Your task to perform on an android device: Go to Amazon Image 0: 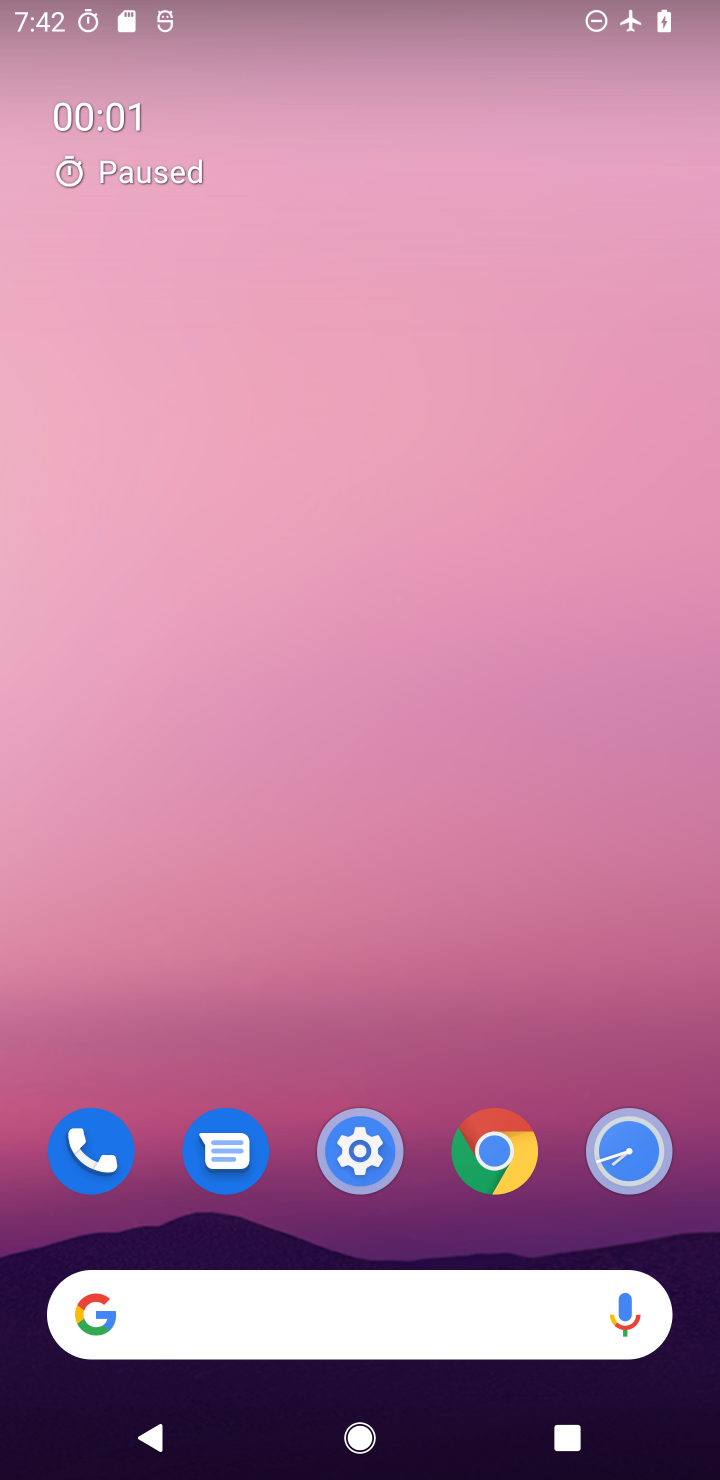
Step 0: drag from (457, 520) to (478, 129)
Your task to perform on an android device: Go to Amazon Image 1: 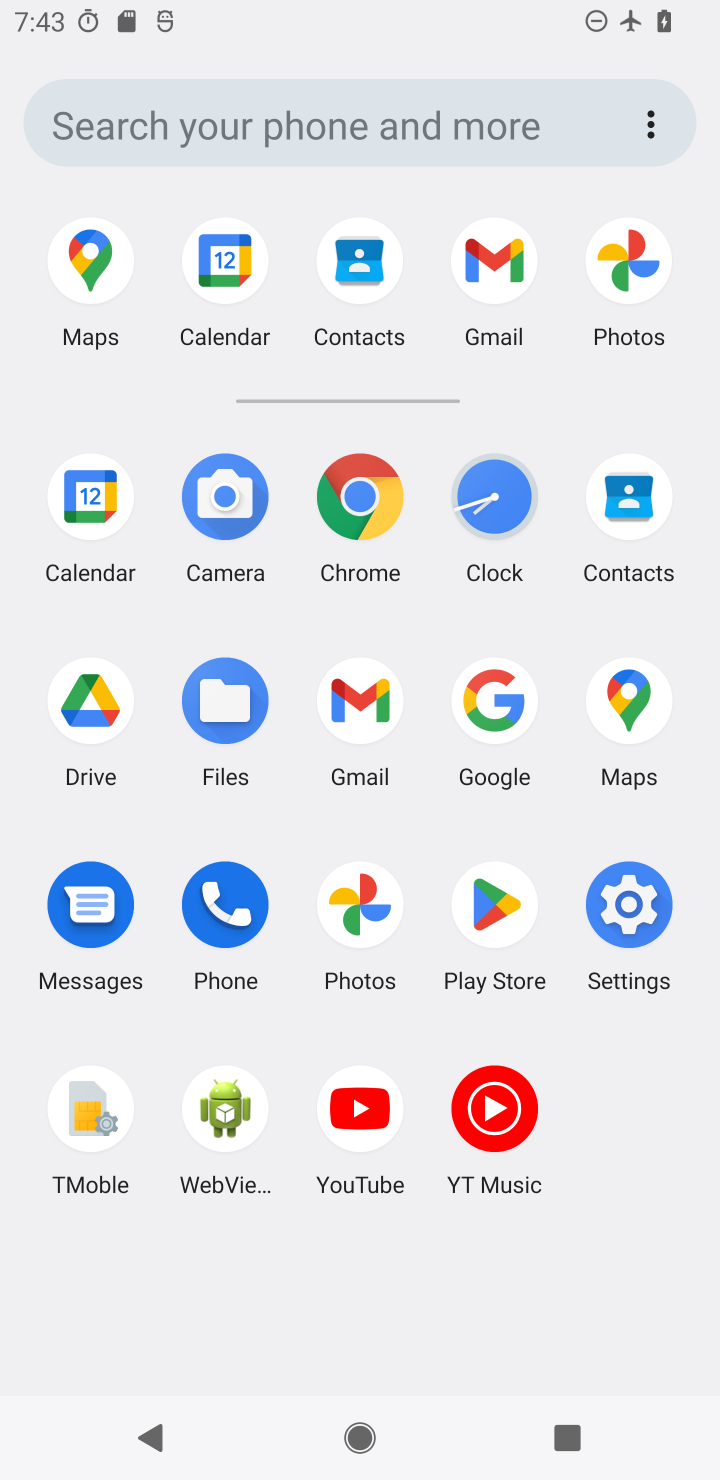
Step 1: click (363, 501)
Your task to perform on an android device: Go to Amazon Image 2: 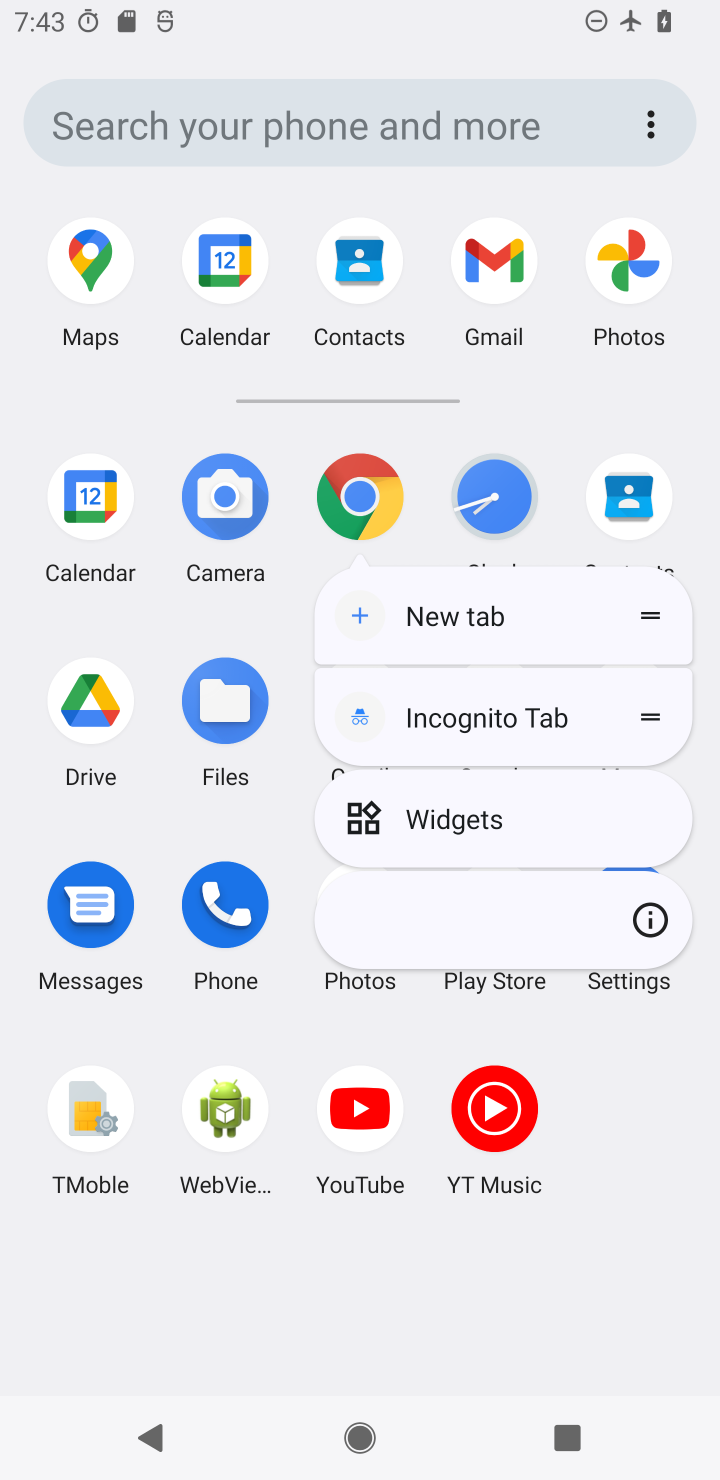
Step 2: click (358, 494)
Your task to perform on an android device: Go to Amazon Image 3: 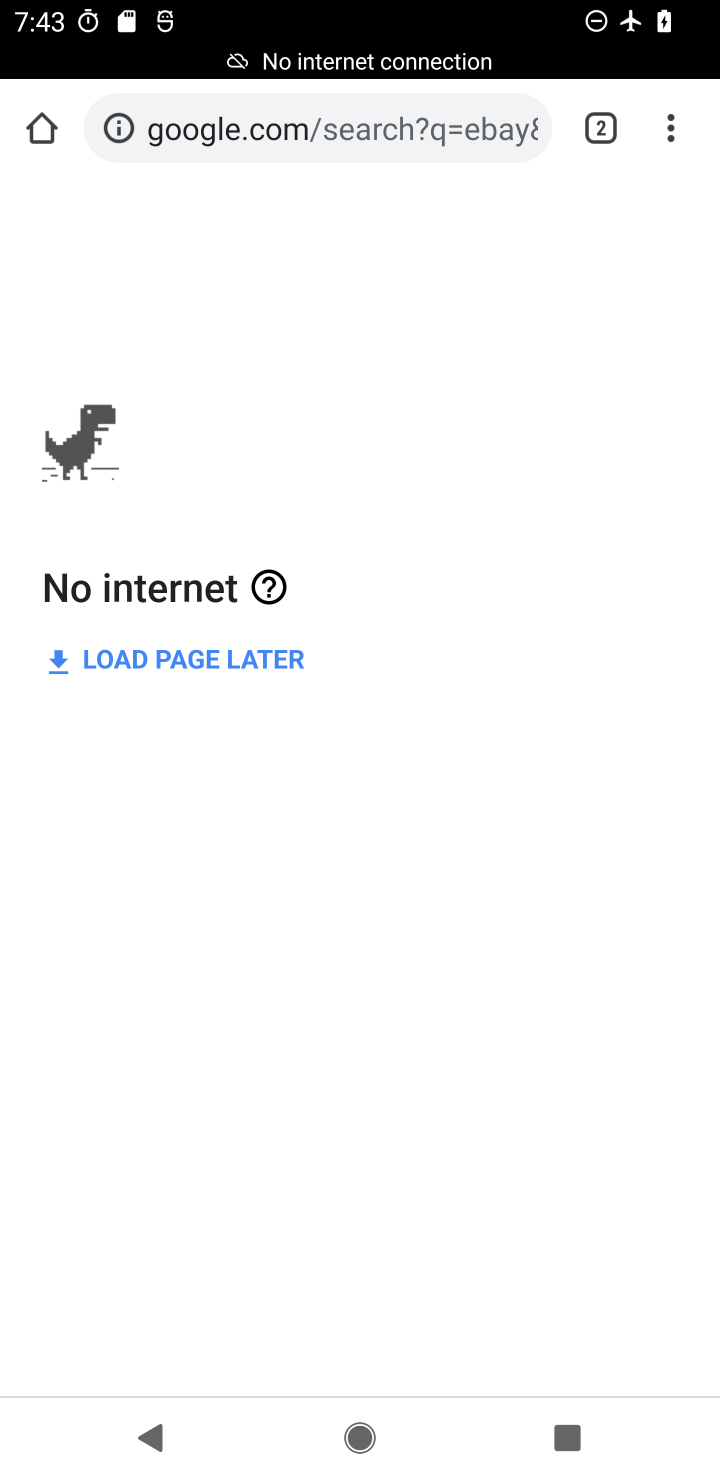
Step 3: click (311, 109)
Your task to perform on an android device: Go to Amazon Image 4: 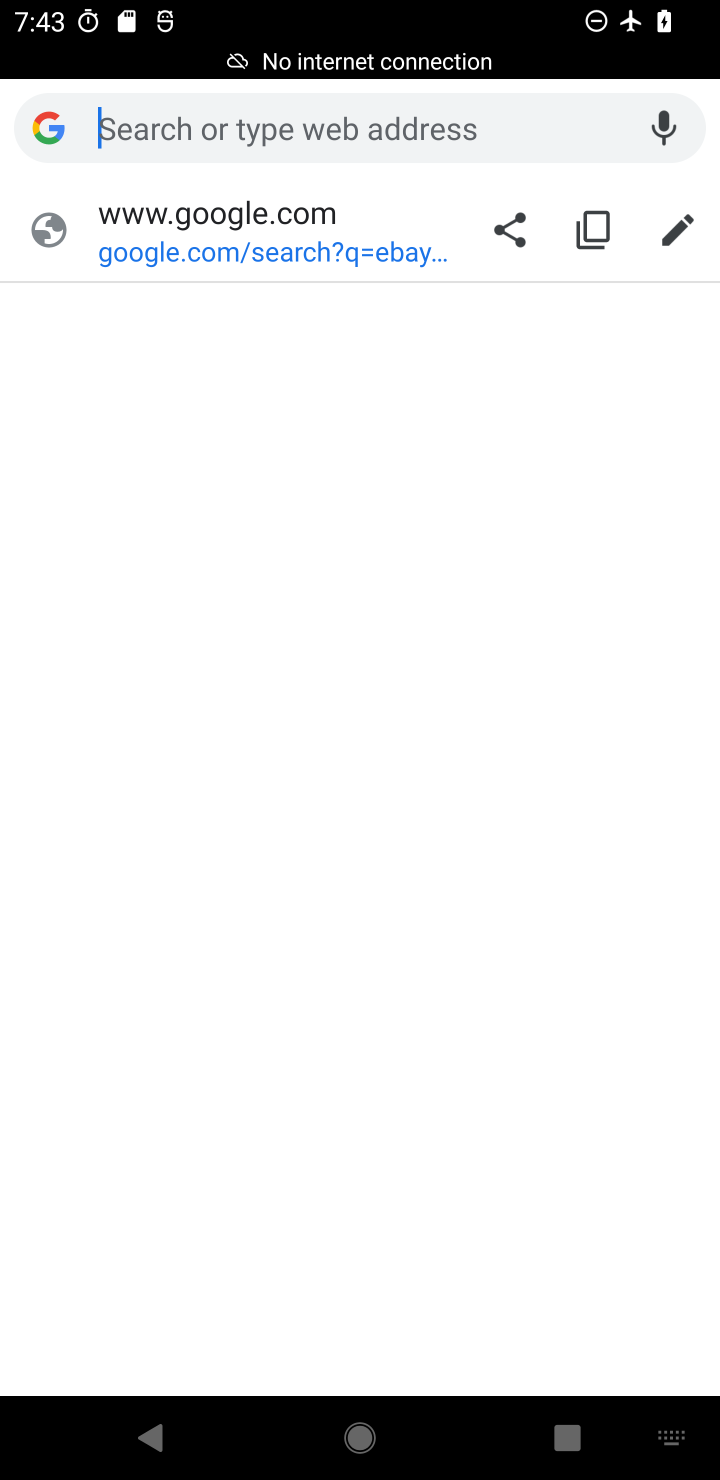
Step 4: type "amazon"
Your task to perform on an android device: Go to Amazon Image 5: 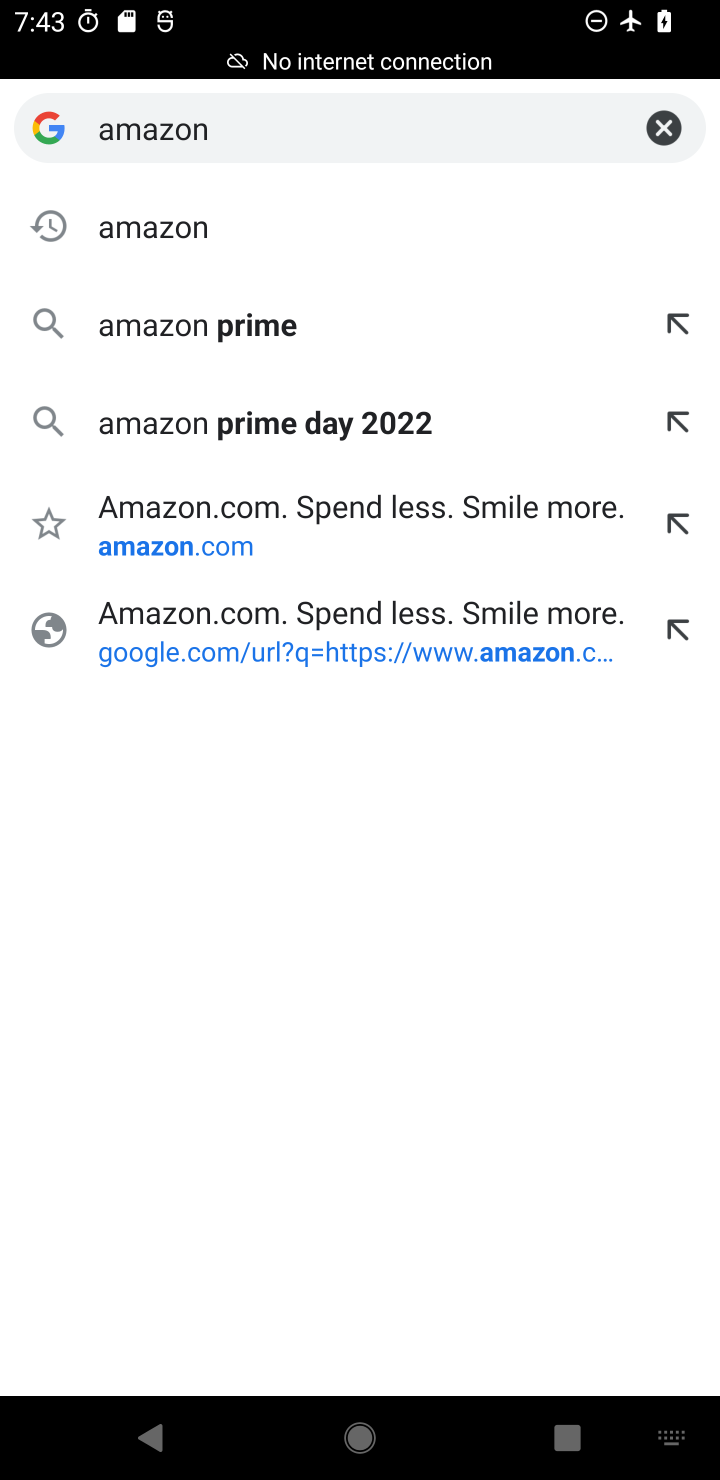
Step 5: click (236, 228)
Your task to perform on an android device: Go to Amazon Image 6: 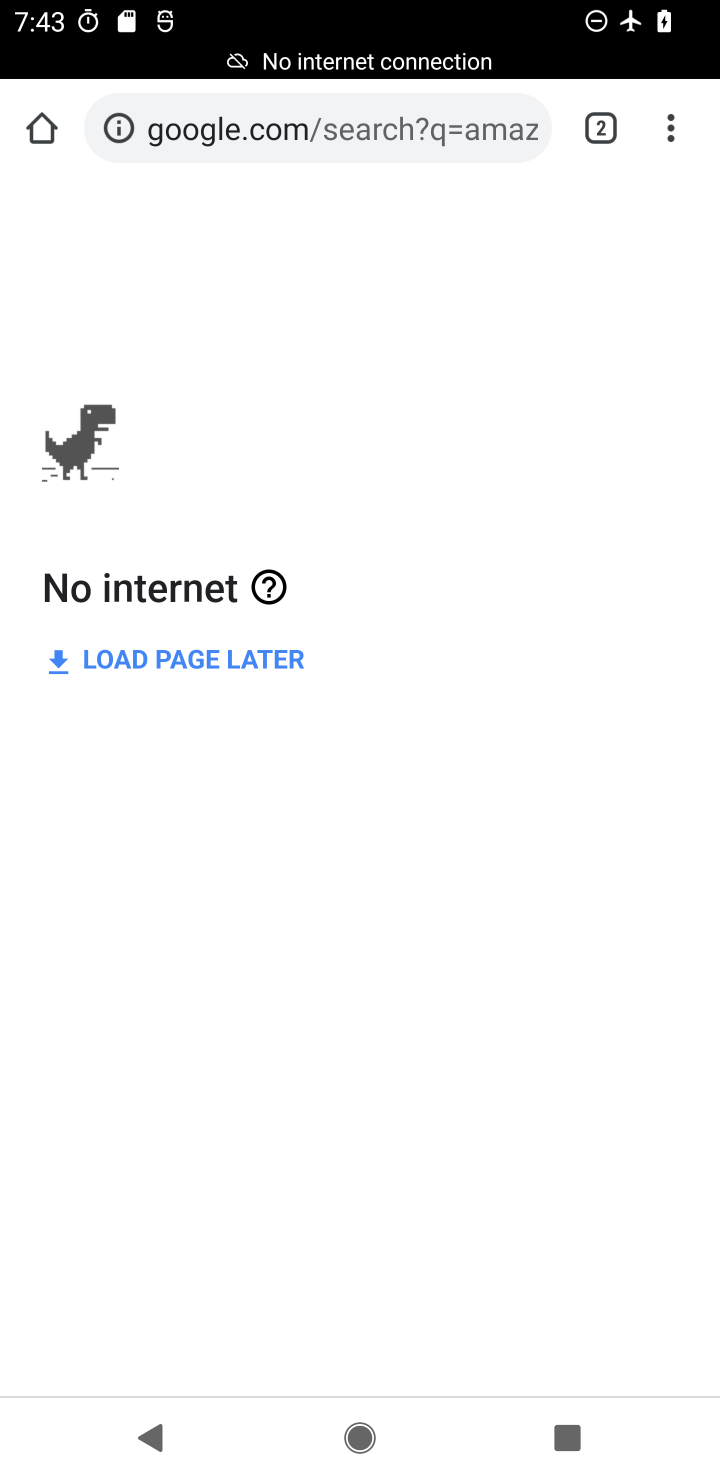
Step 6: task complete